Your task to perform on an android device: Open Google Chrome and open the bookmarks view Image 0: 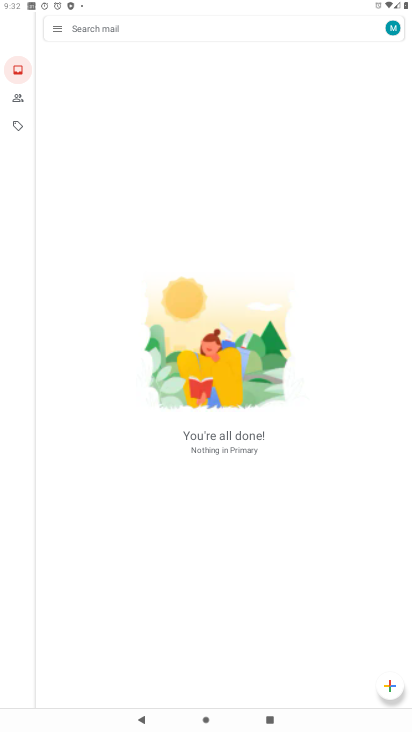
Step 0: press home button
Your task to perform on an android device: Open Google Chrome and open the bookmarks view Image 1: 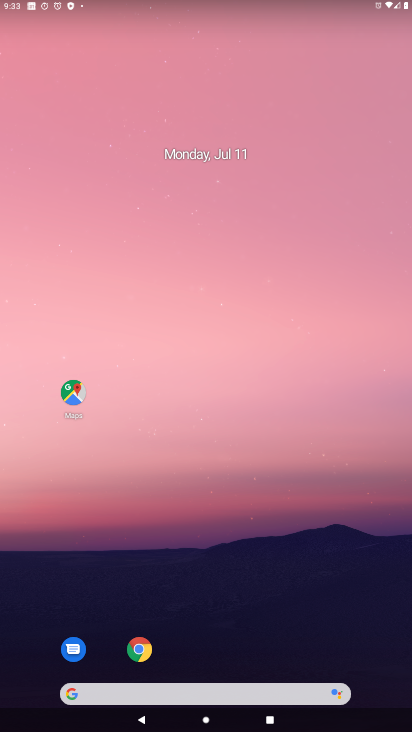
Step 1: click (139, 647)
Your task to perform on an android device: Open Google Chrome and open the bookmarks view Image 2: 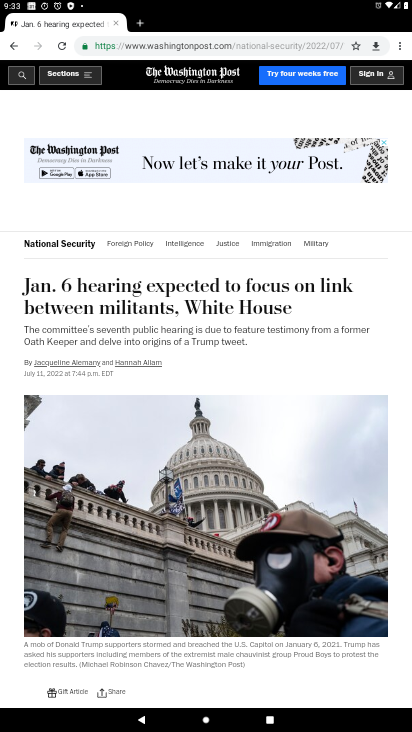
Step 2: click (399, 49)
Your task to perform on an android device: Open Google Chrome and open the bookmarks view Image 3: 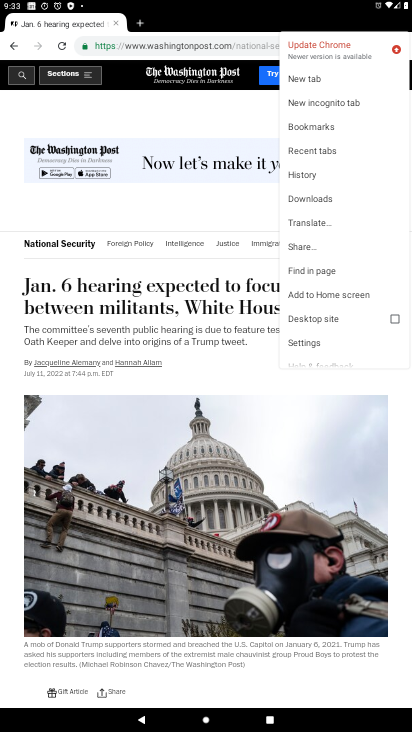
Step 3: click (332, 128)
Your task to perform on an android device: Open Google Chrome and open the bookmarks view Image 4: 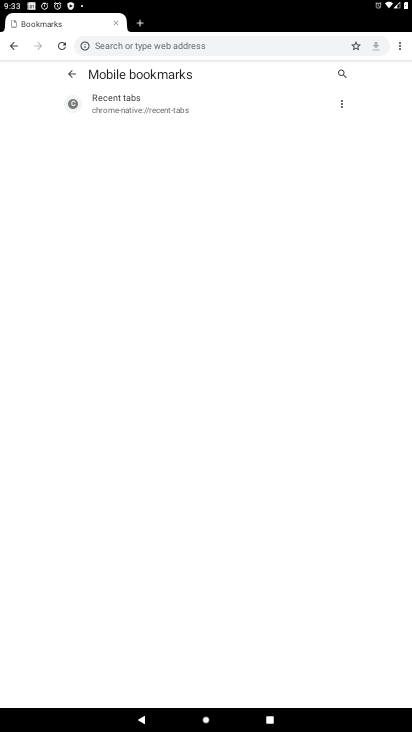
Step 4: task complete